Your task to perform on an android device: clear all cookies in the chrome app Image 0: 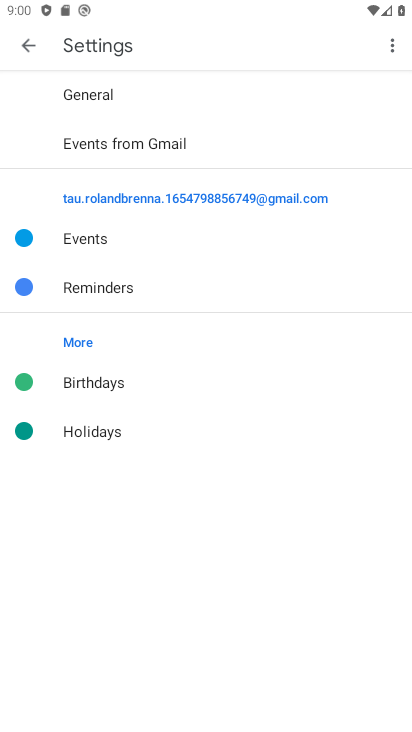
Step 0: press home button
Your task to perform on an android device: clear all cookies in the chrome app Image 1: 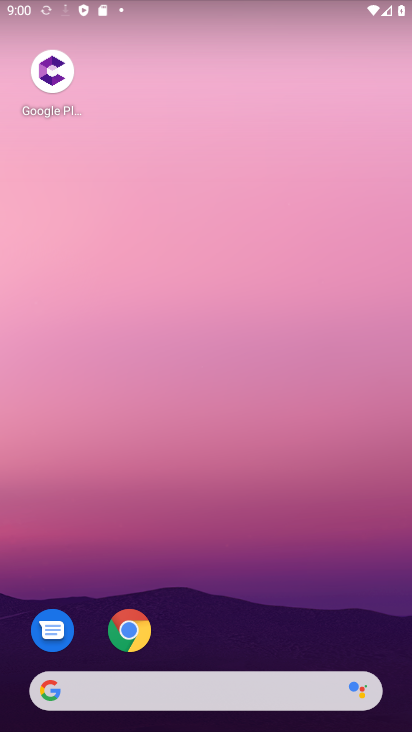
Step 1: drag from (275, 137) to (290, 45)
Your task to perform on an android device: clear all cookies in the chrome app Image 2: 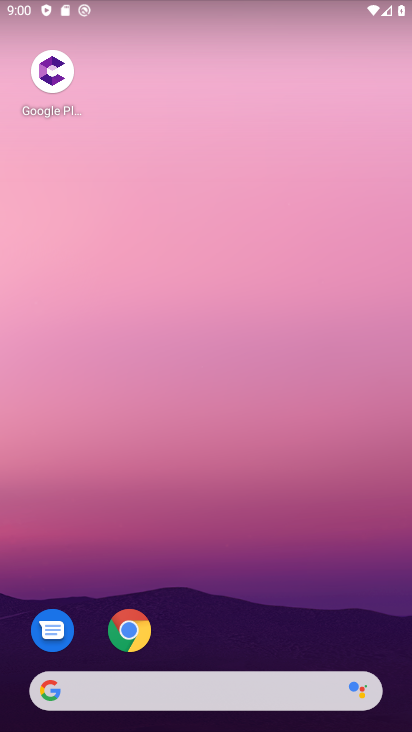
Step 2: drag from (338, 638) to (355, 14)
Your task to perform on an android device: clear all cookies in the chrome app Image 3: 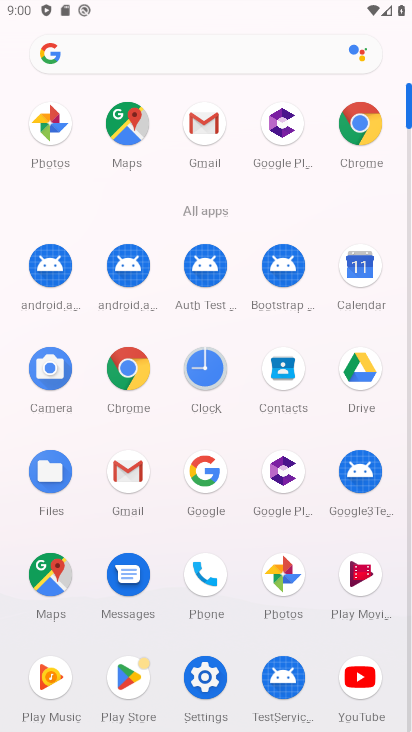
Step 3: click (121, 386)
Your task to perform on an android device: clear all cookies in the chrome app Image 4: 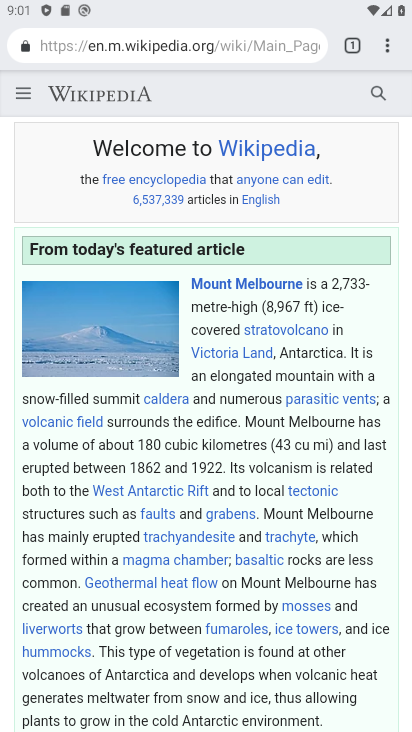
Step 4: drag from (382, 46) to (262, 553)
Your task to perform on an android device: clear all cookies in the chrome app Image 5: 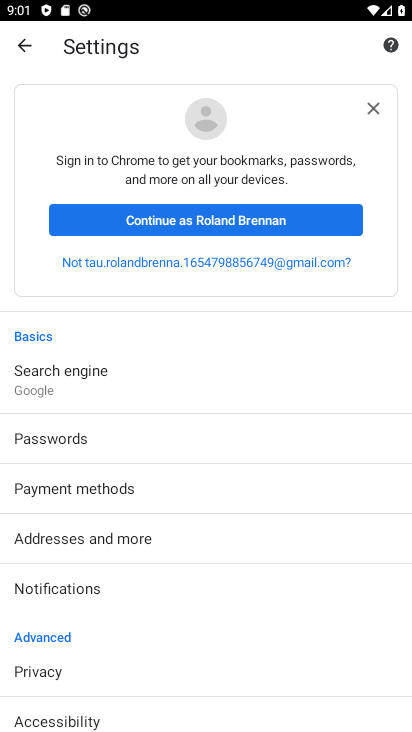
Step 5: click (84, 674)
Your task to perform on an android device: clear all cookies in the chrome app Image 6: 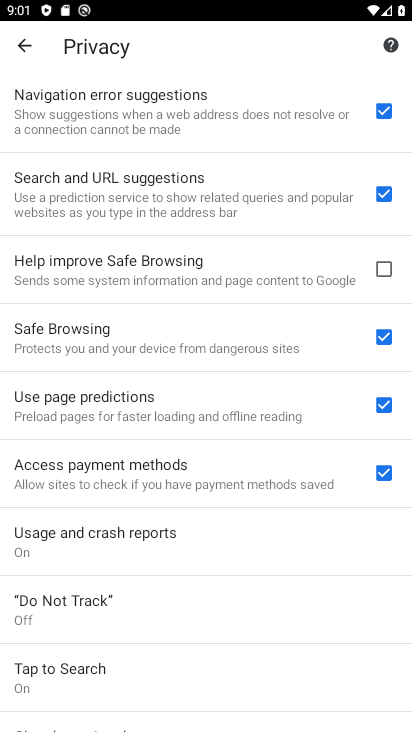
Step 6: drag from (212, 625) to (234, 84)
Your task to perform on an android device: clear all cookies in the chrome app Image 7: 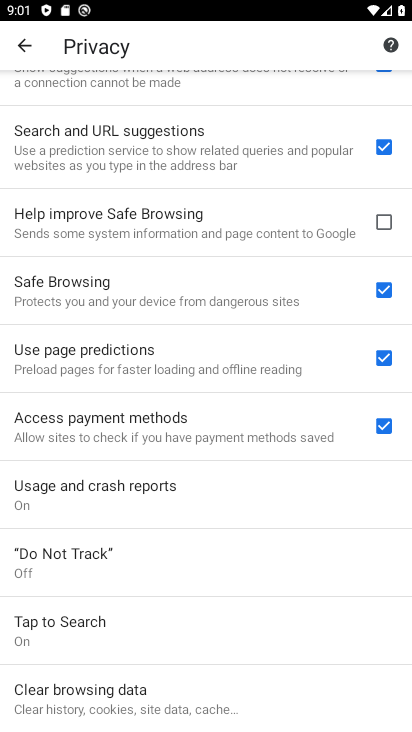
Step 7: click (216, 702)
Your task to perform on an android device: clear all cookies in the chrome app Image 8: 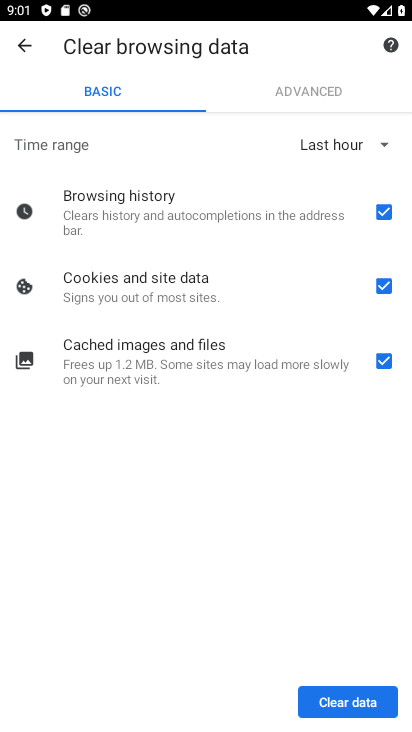
Step 8: click (373, 705)
Your task to perform on an android device: clear all cookies in the chrome app Image 9: 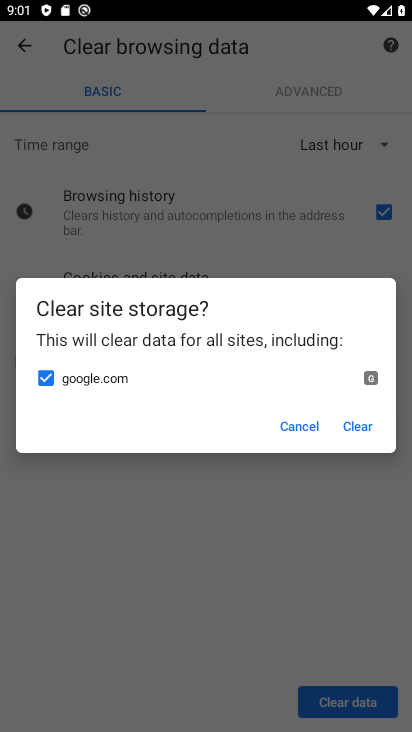
Step 9: click (332, 420)
Your task to perform on an android device: clear all cookies in the chrome app Image 10: 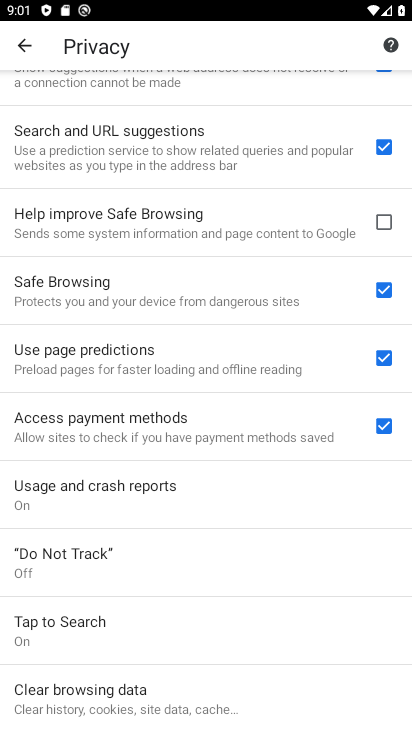
Step 10: task complete